Your task to perform on an android device: check the backup settings in the google photos Image 0: 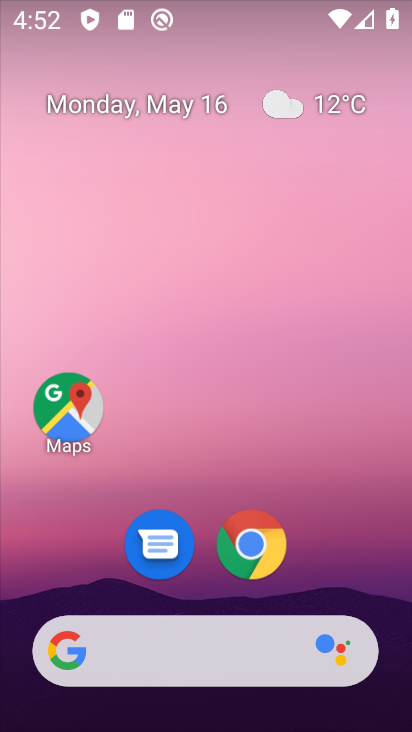
Step 0: drag from (342, 556) to (239, 70)
Your task to perform on an android device: check the backup settings in the google photos Image 1: 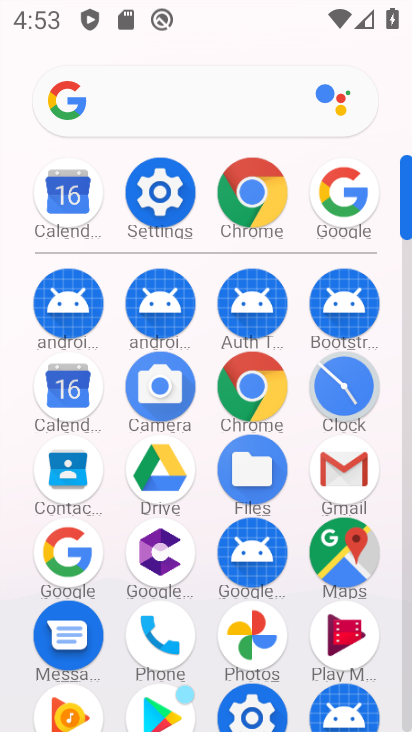
Step 1: drag from (202, 621) to (211, 375)
Your task to perform on an android device: check the backup settings in the google photos Image 2: 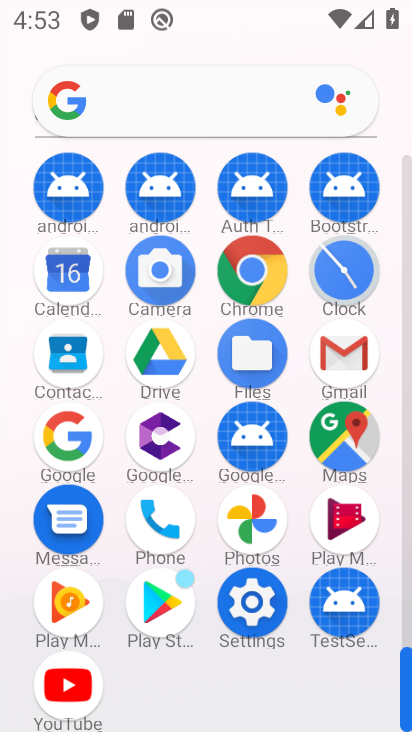
Step 2: click (253, 519)
Your task to perform on an android device: check the backup settings in the google photos Image 3: 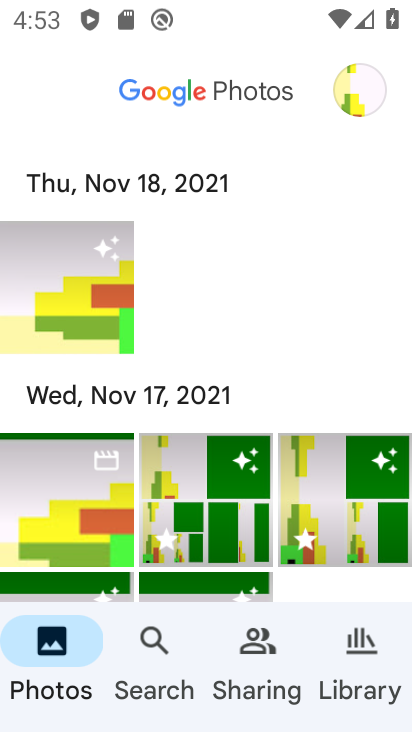
Step 3: click (364, 92)
Your task to perform on an android device: check the backup settings in the google photos Image 4: 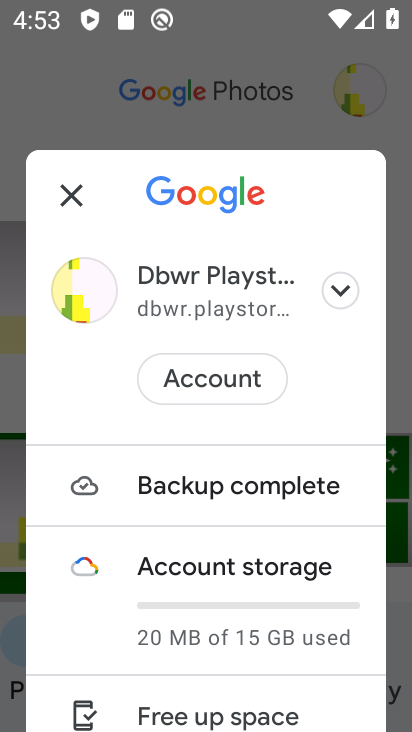
Step 4: drag from (183, 548) to (222, 420)
Your task to perform on an android device: check the backup settings in the google photos Image 5: 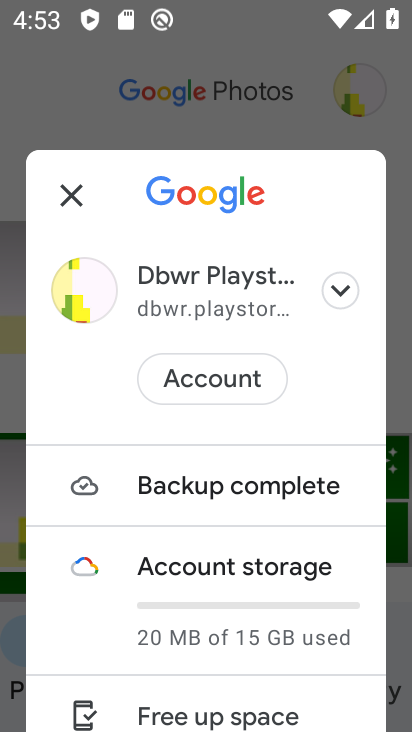
Step 5: drag from (158, 549) to (145, 317)
Your task to perform on an android device: check the backup settings in the google photos Image 6: 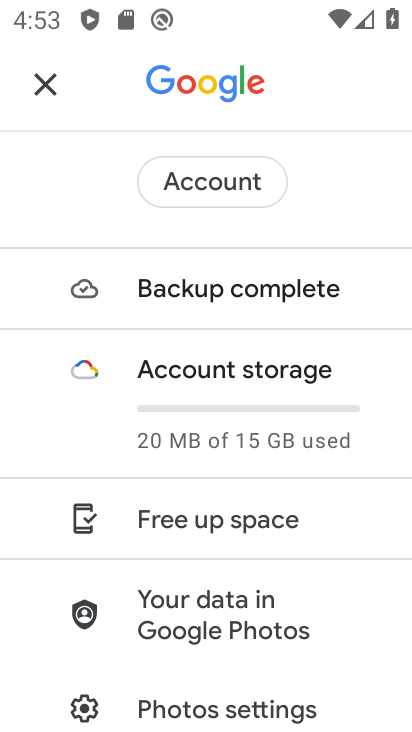
Step 6: drag from (175, 559) to (215, 453)
Your task to perform on an android device: check the backup settings in the google photos Image 7: 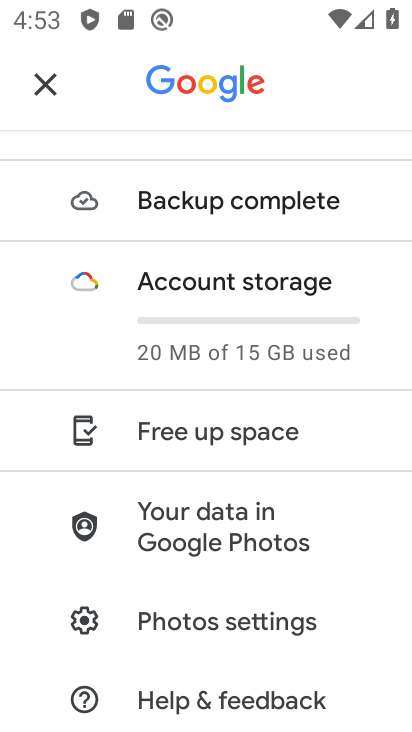
Step 7: click (199, 614)
Your task to perform on an android device: check the backup settings in the google photos Image 8: 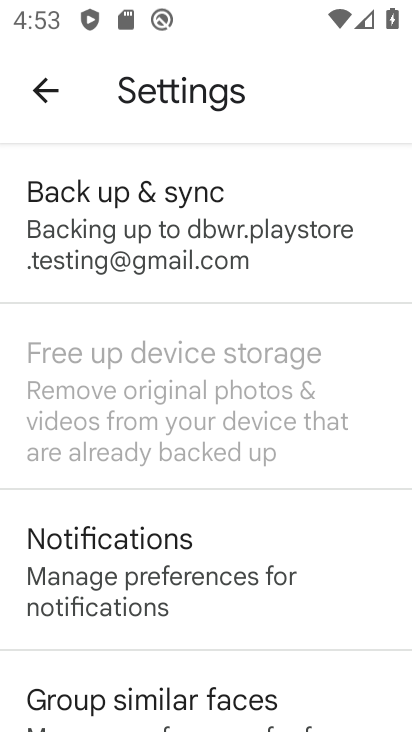
Step 8: click (169, 231)
Your task to perform on an android device: check the backup settings in the google photos Image 9: 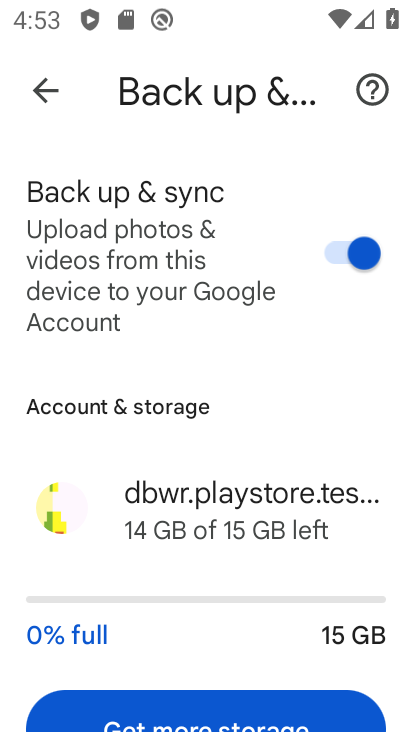
Step 9: task complete